Your task to perform on an android device: Search for sushi restaurants on Maps Image 0: 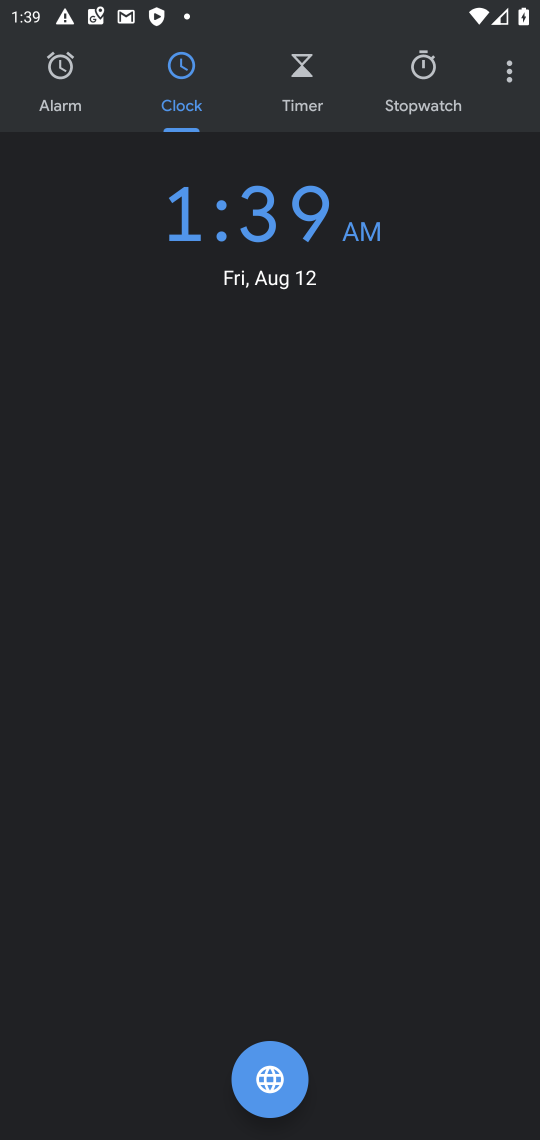
Step 0: press home button
Your task to perform on an android device: Search for sushi restaurants on Maps Image 1: 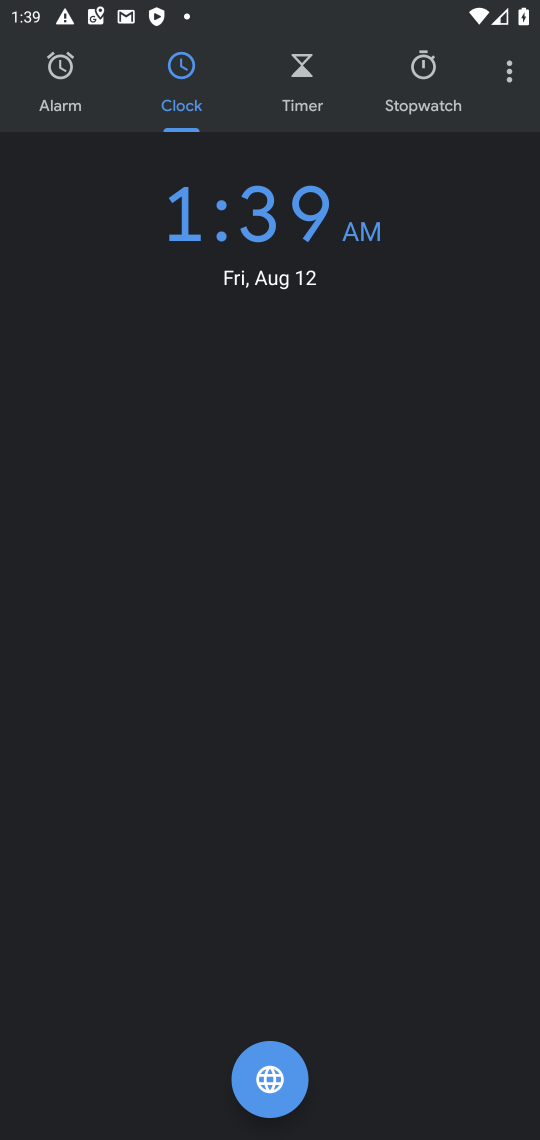
Step 1: press home button
Your task to perform on an android device: Search for sushi restaurants on Maps Image 2: 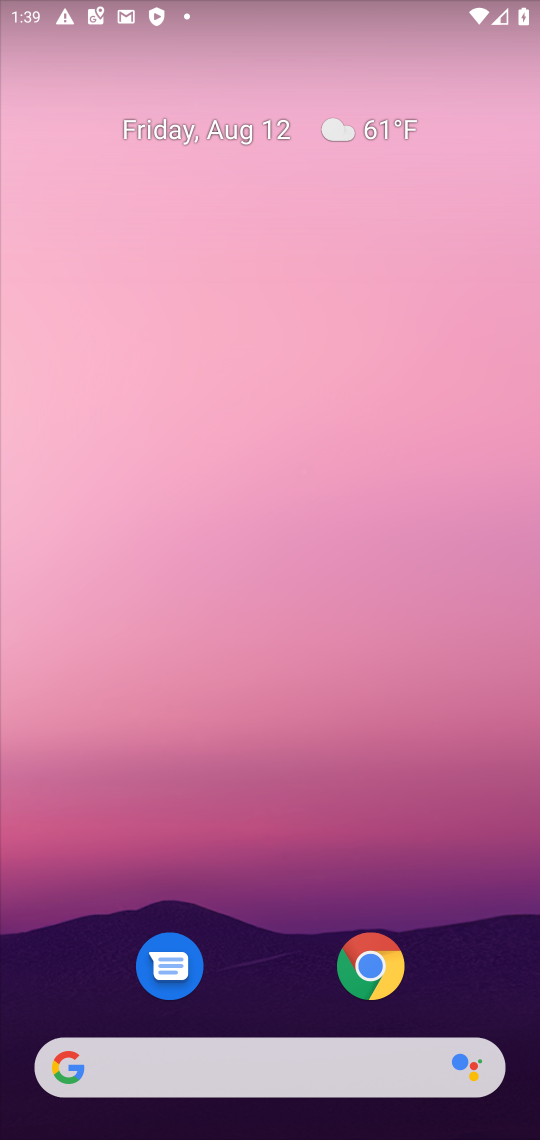
Step 2: drag from (364, 604) to (375, 31)
Your task to perform on an android device: Search for sushi restaurants on Maps Image 3: 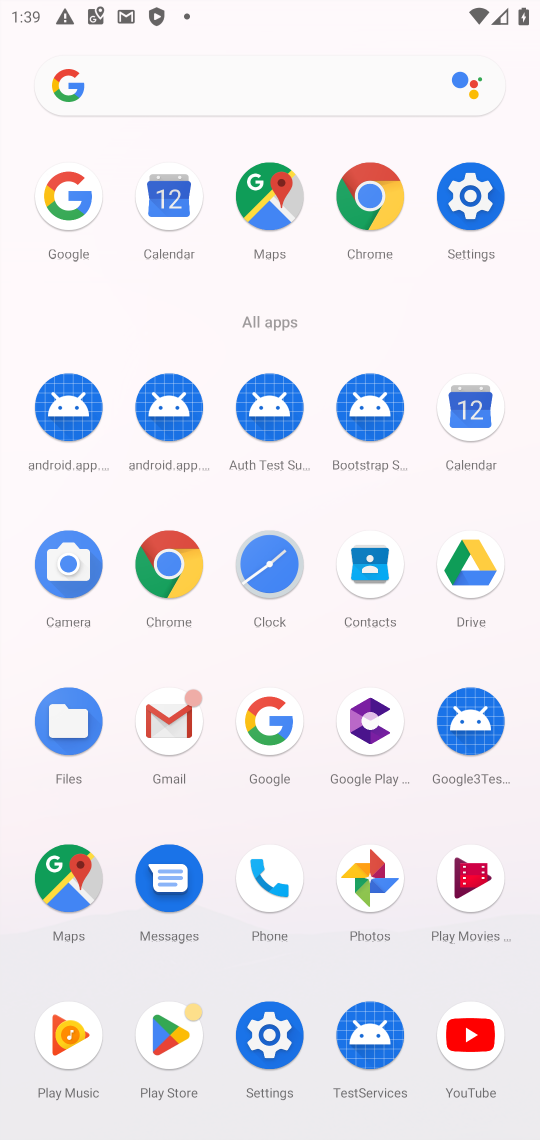
Step 3: click (69, 877)
Your task to perform on an android device: Search for sushi restaurants on Maps Image 4: 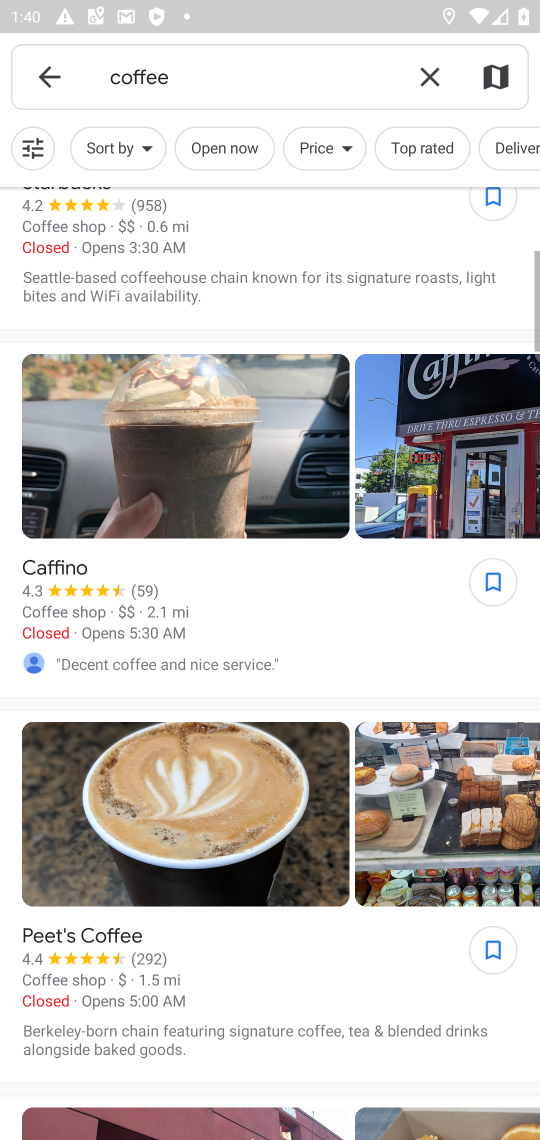
Step 4: click (443, 84)
Your task to perform on an android device: Search for sushi restaurants on Maps Image 5: 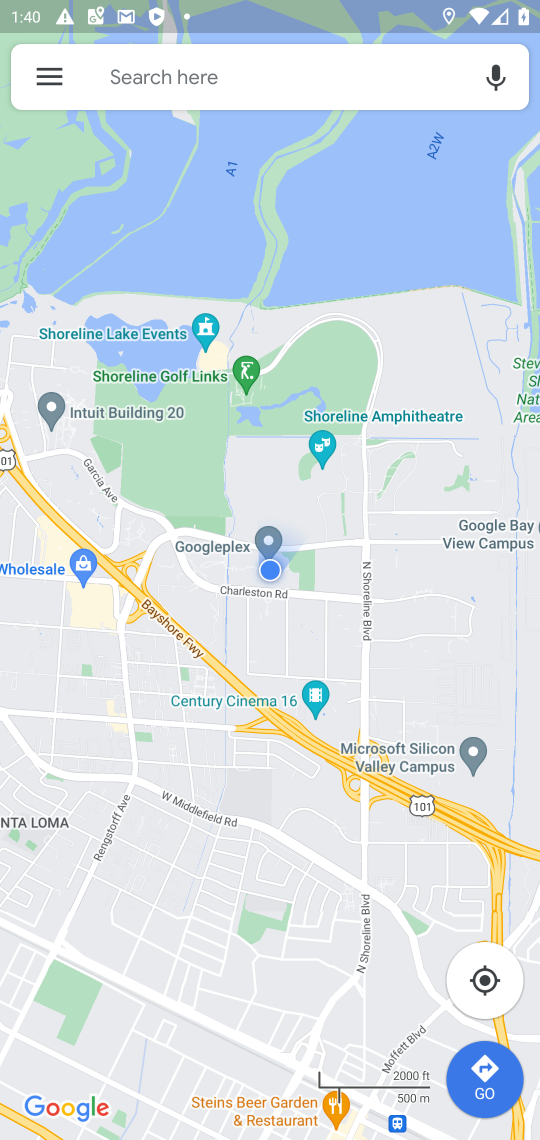
Step 5: click (351, 84)
Your task to perform on an android device: Search for sushi restaurants on Maps Image 6: 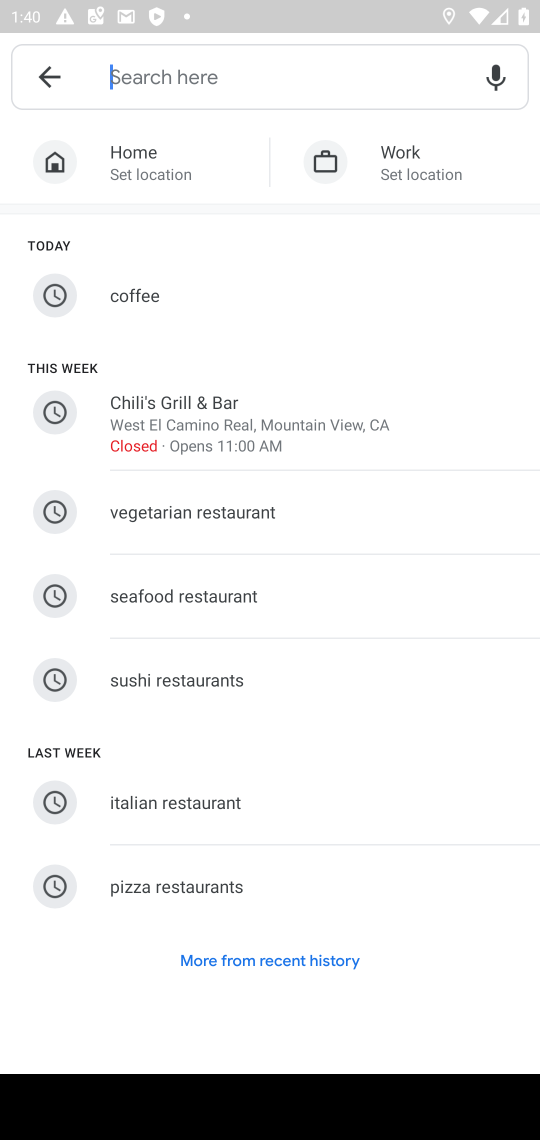
Step 6: type "sushi restaurants"
Your task to perform on an android device: Search for sushi restaurants on Maps Image 7: 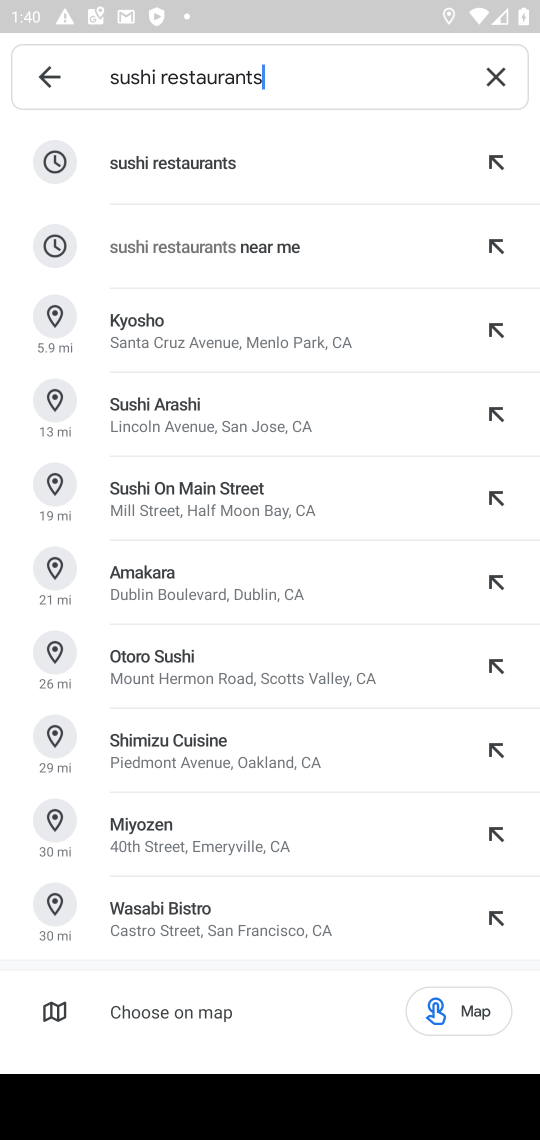
Step 7: press enter
Your task to perform on an android device: Search for sushi restaurants on Maps Image 8: 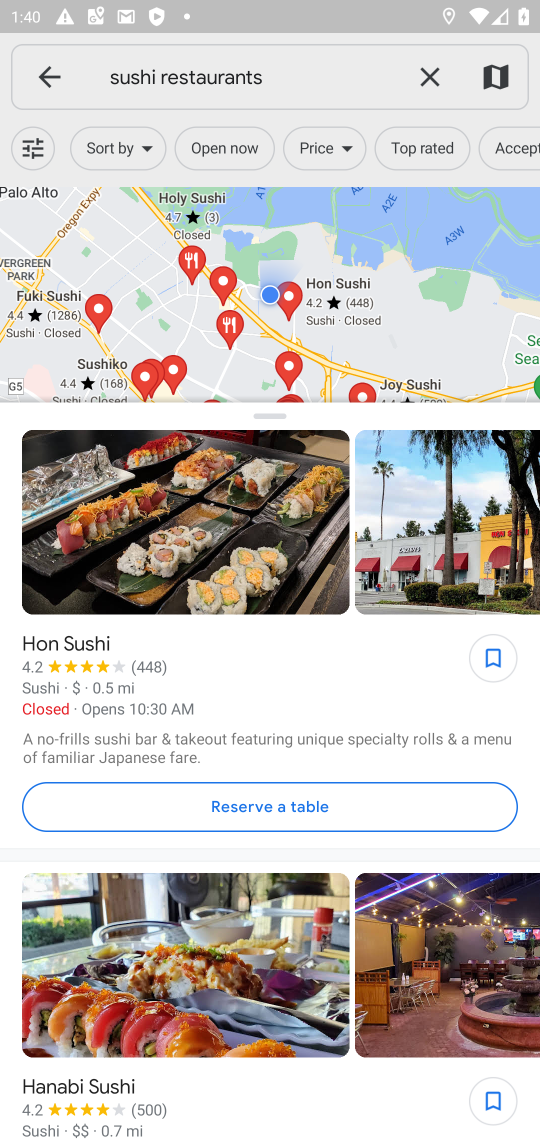
Step 8: task complete